Your task to perform on an android device: turn on translation in the chrome app Image 0: 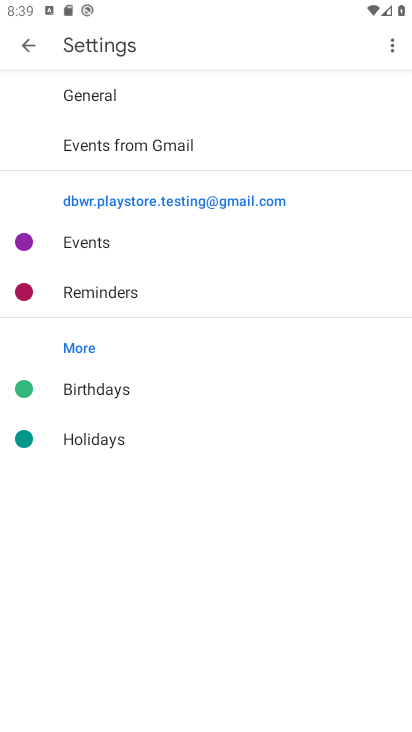
Step 0: press home button
Your task to perform on an android device: turn on translation in the chrome app Image 1: 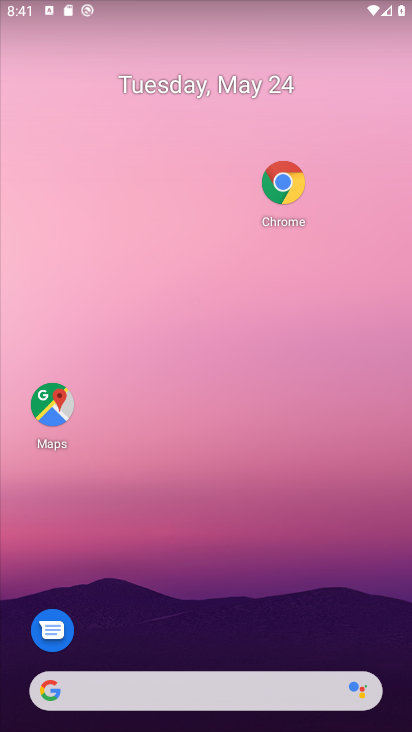
Step 1: drag from (277, 721) to (281, 148)
Your task to perform on an android device: turn on translation in the chrome app Image 2: 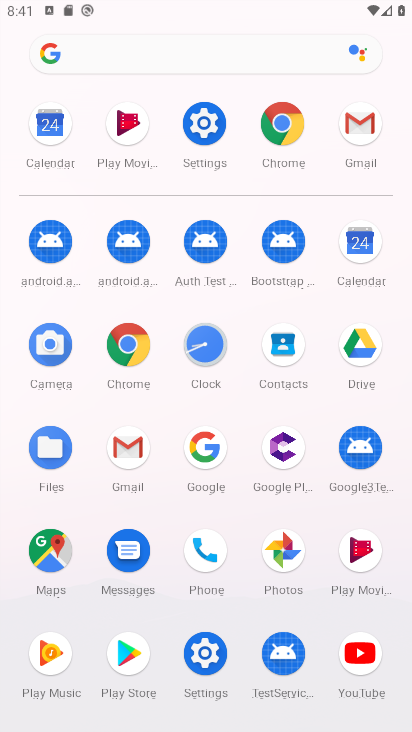
Step 2: click (283, 121)
Your task to perform on an android device: turn on translation in the chrome app Image 3: 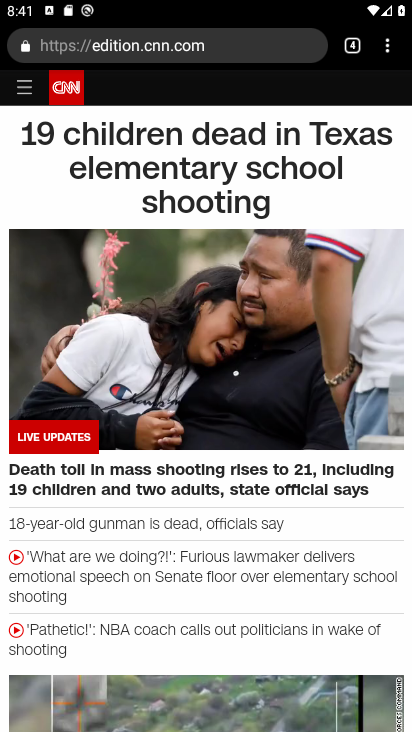
Step 3: click (381, 55)
Your task to perform on an android device: turn on translation in the chrome app Image 4: 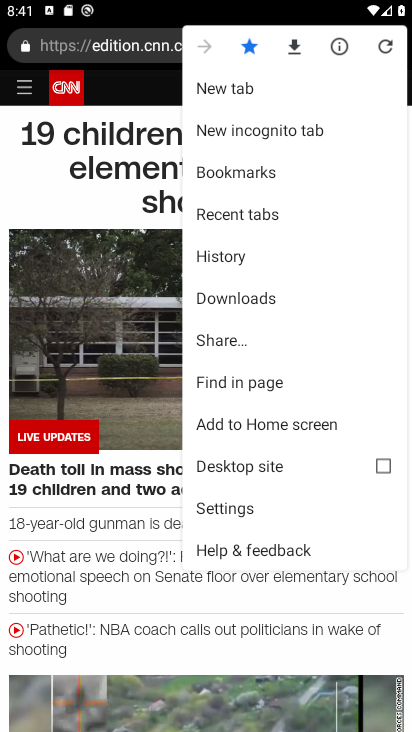
Step 4: click (236, 504)
Your task to perform on an android device: turn on translation in the chrome app Image 5: 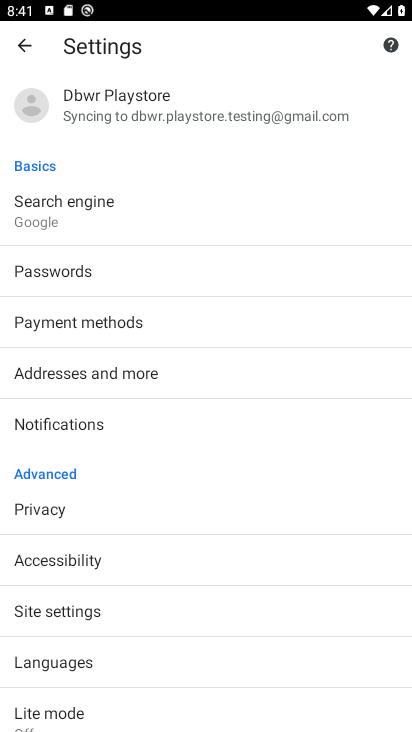
Step 5: click (75, 658)
Your task to perform on an android device: turn on translation in the chrome app Image 6: 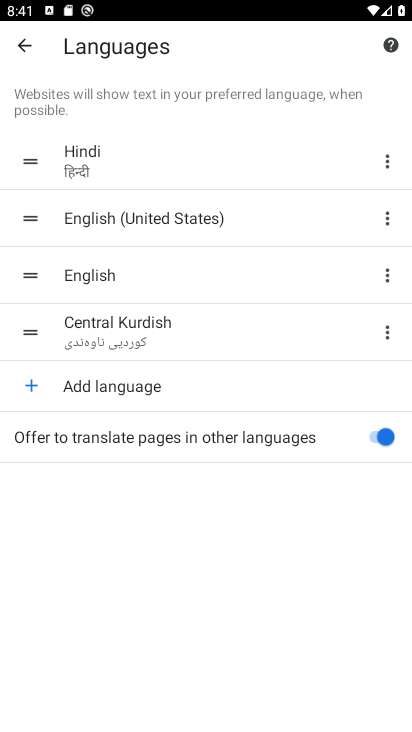
Step 6: click (365, 445)
Your task to perform on an android device: turn on translation in the chrome app Image 7: 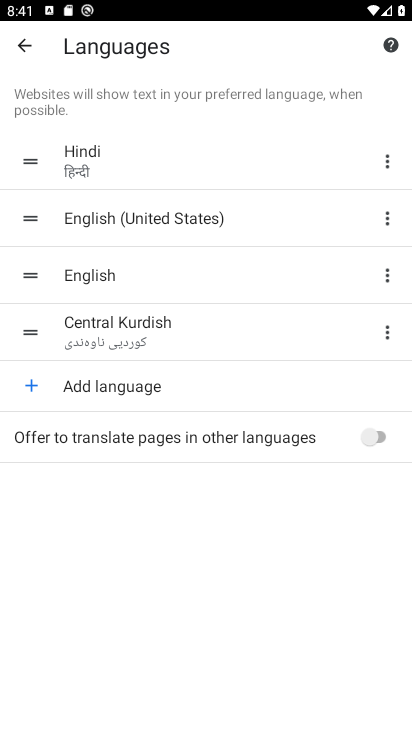
Step 7: click (365, 445)
Your task to perform on an android device: turn on translation in the chrome app Image 8: 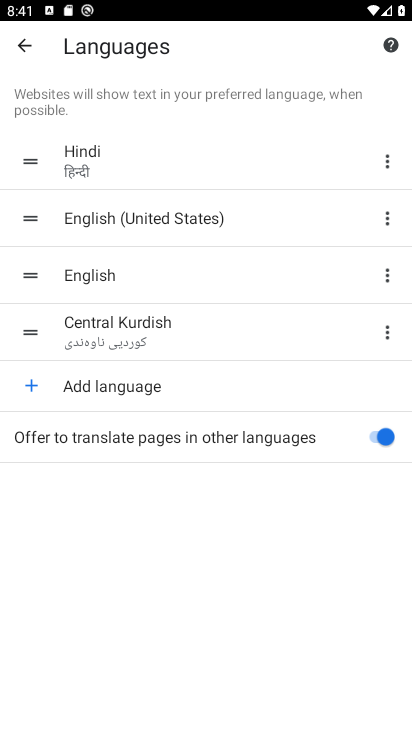
Step 8: task complete